Your task to perform on an android device: choose inbox layout in the gmail app Image 0: 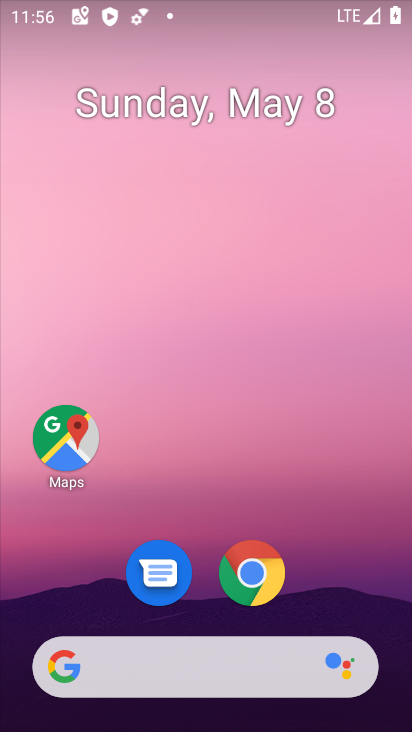
Step 0: drag from (384, 569) to (252, 7)
Your task to perform on an android device: choose inbox layout in the gmail app Image 1: 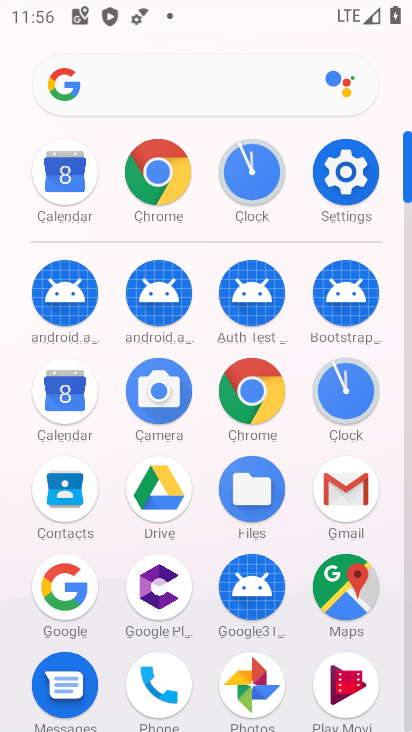
Step 1: drag from (10, 570) to (18, 205)
Your task to perform on an android device: choose inbox layout in the gmail app Image 2: 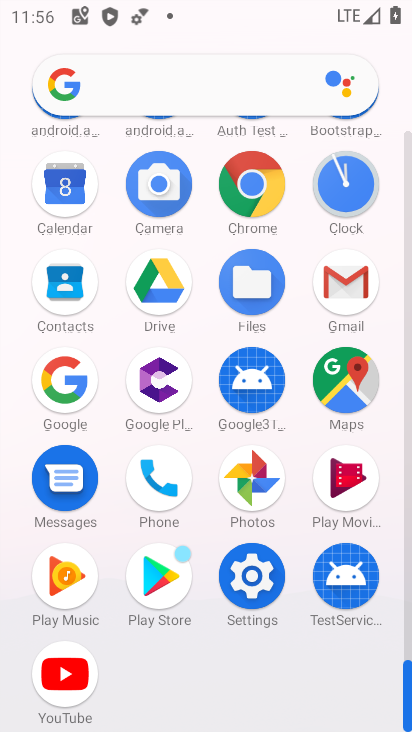
Step 2: click (344, 277)
Your task to perform on an android device: choose inbox layout in the gmail app Image 3: 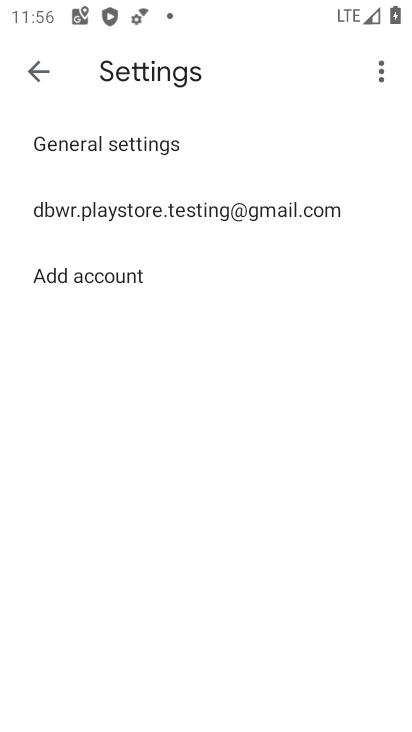
Step 3: click (101, 141)
Your task to perform on an android device: choose inbox layout in the gmail app Image 4: 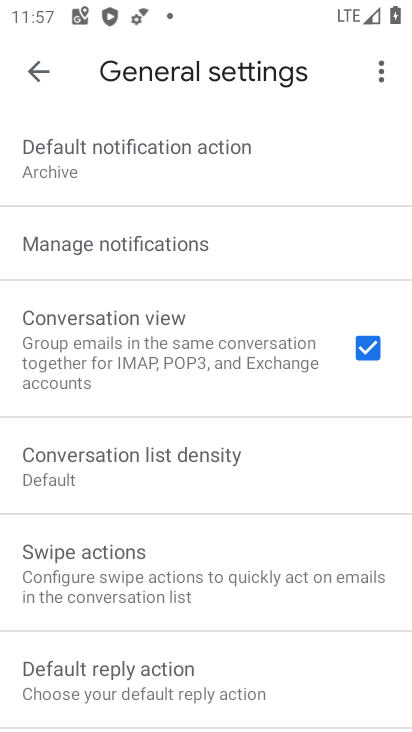
Step 4: click (42, 71)
Your task to perform on an android device: choose inbox layout in the gmail app Image 5: 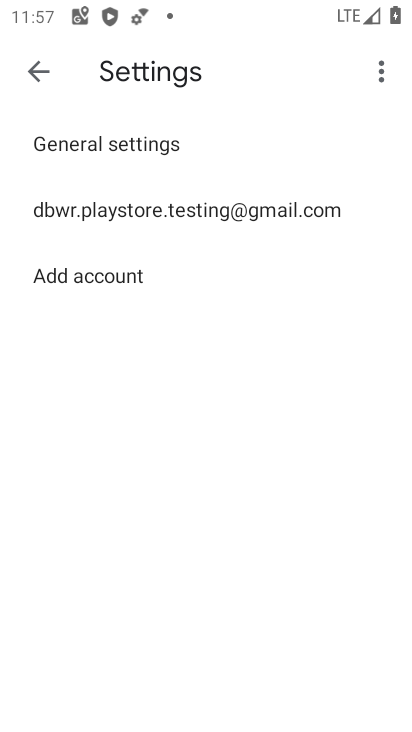
Step 5: click (116, 200)
Your task to perform on an android device: choose inbox layout in the gmail app Image 6: 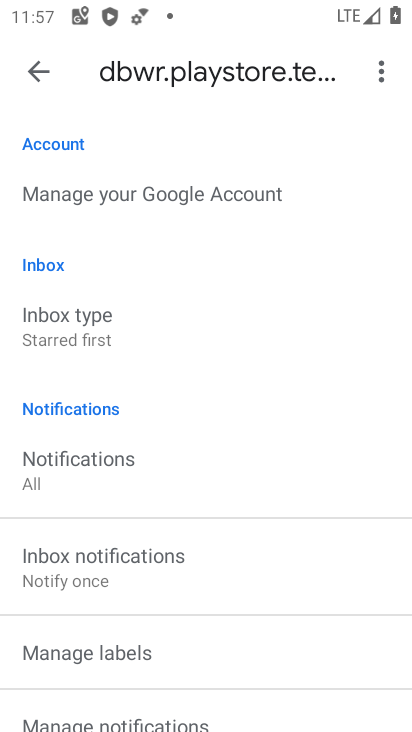
Step 6: click (153, 317)
Your task to perform on an android device: choose inbox layout in the gmail app Image 7: 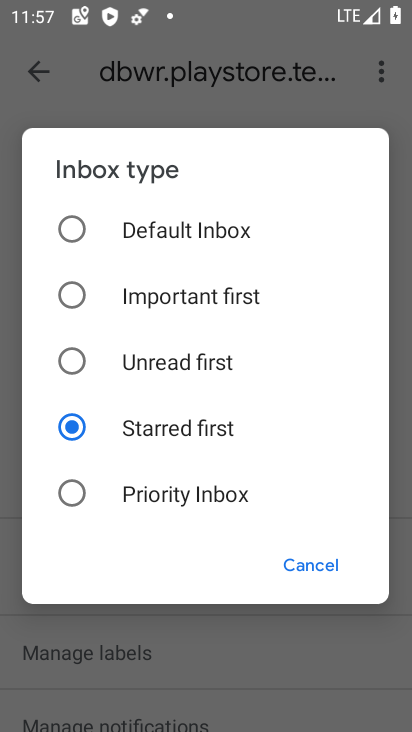
Step 7: click (153, 231)
Your task to perform on an android device: choose inbox layout in the gmail app Image 8: 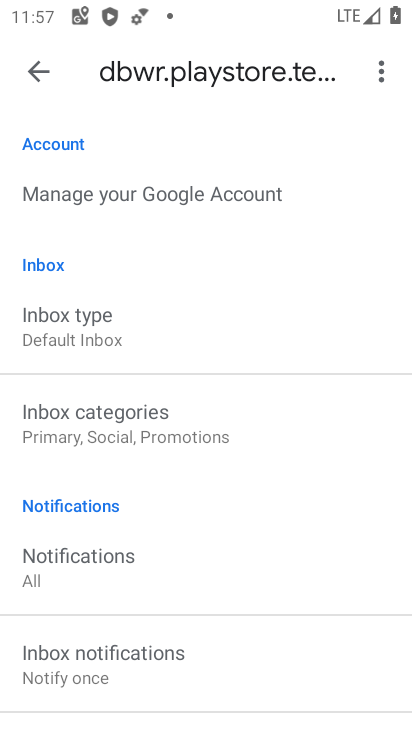
Step 8: task complete